Your task to perform on an android device: visit the assistant section in the google photos Image 0: 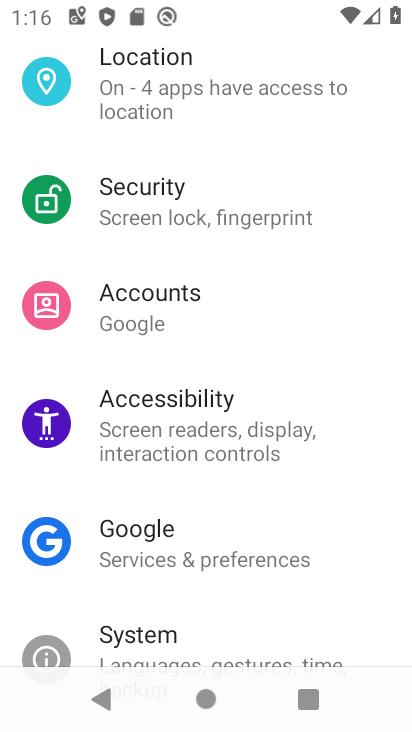
Step 0: press home button
Your task to perform on an android device: visit the assistant section in the google photos Image 1: 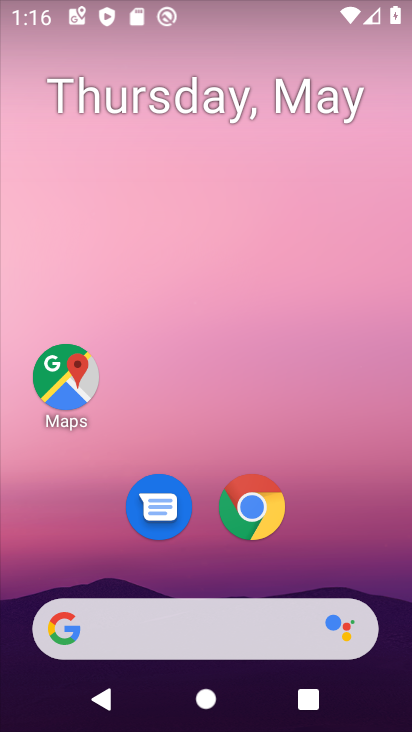
Step 1: drag from (346, 594) to (328, 56)
Your task to perform on an android device: visit the assistant section in the google photos Image 2: 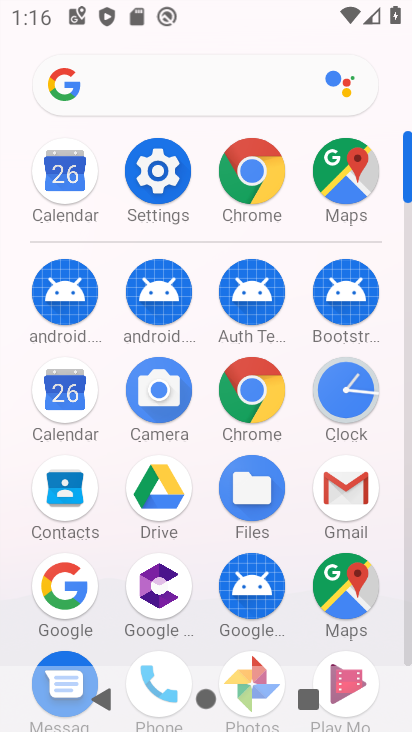
Step 2: drag from (210, 511) to (203, 152)
Your task to perform on an android device: visit the assistant section in the google photos Image 3: 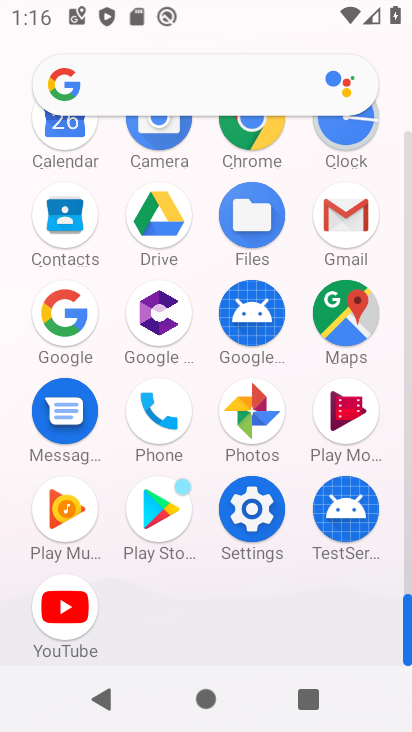
Step 3: click (260, 410)
Your task to perform on an android device: visit the assistant section in the google photos Image 4: 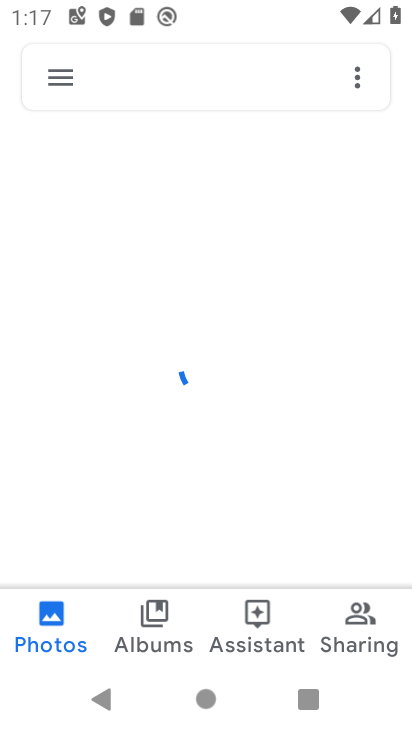
Step 4: click (258, 601)
Your task to perform on an android device: visit the assistant section in the google photos Image 5: 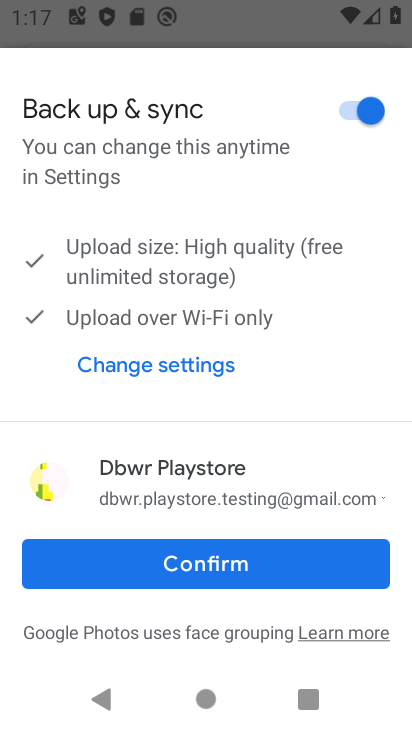
Step 5: click (268, 574)
Your task to perform on an android device: visit the assistant section in the google photos Image 6: 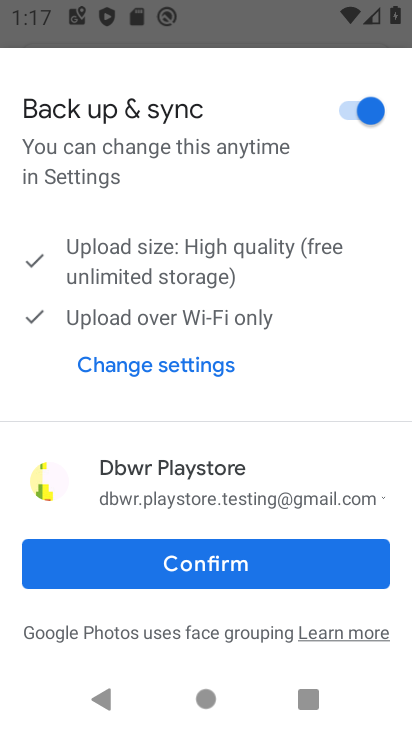
Step 6: click (268, 574)
Your task to perform on an android device: visit the assistant section in the google photos Image 7: 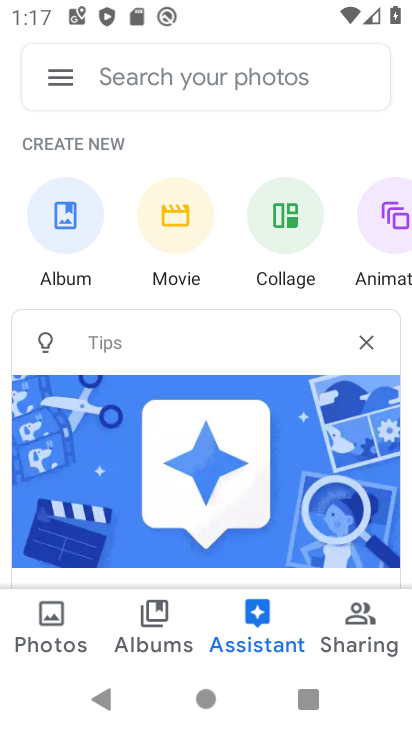
Step 7: task complete